Your task to perform on an android device: turn on the 12-hour format for clock Image 0: 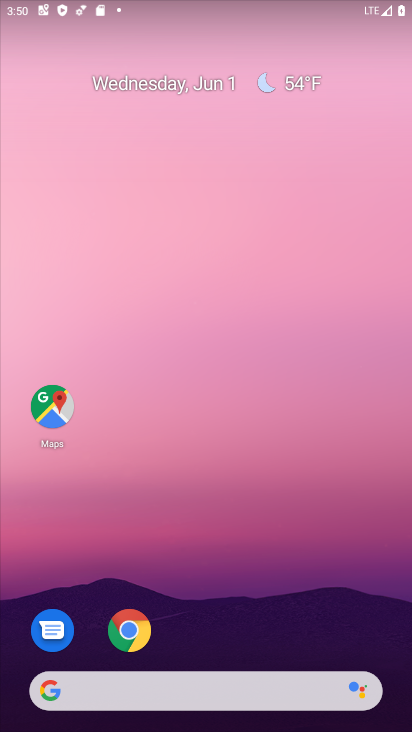
Step 0: drag from (257, 587) to (147, 26)
Your task to perform on an android device: turn on the 12-hour format for clock Image 1: 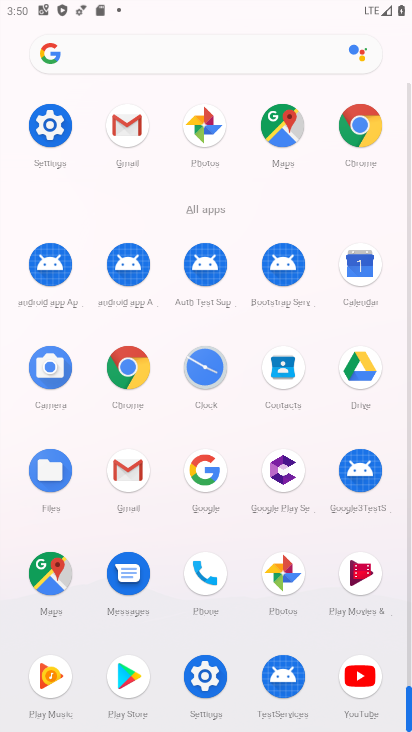
Step 1: drag from (7, 556) to (20, 135)
Your task to perform on an android device: turn on the 12-hour format for clock Image 2: 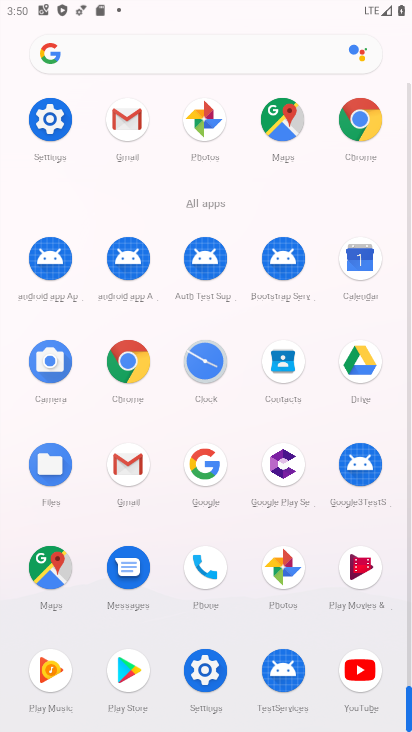
Step 2: click (202, 363)
Your task to perform on an android device: turn on the 12-hour format for clock Image 3: 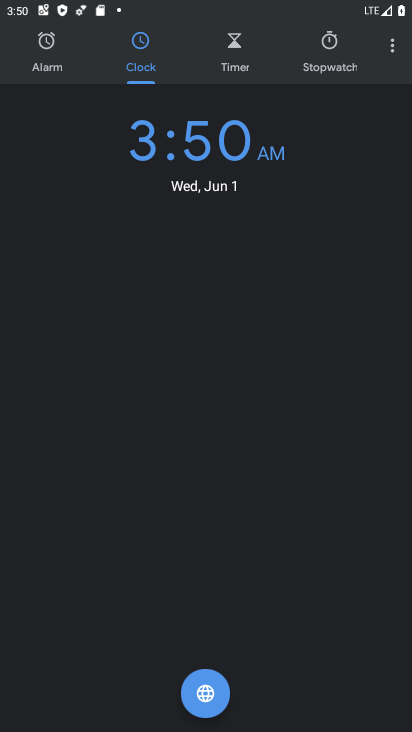
Step 3: drag from (389, 46) to (333, 94)
Your task to perform on an android device: turn on the 12-hour format for clock Image 4: 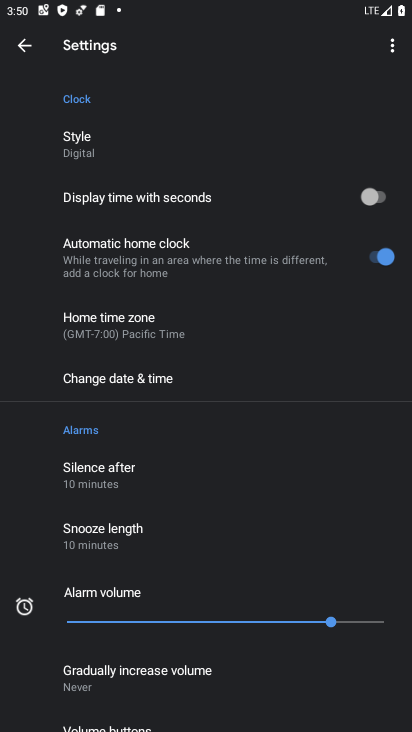
Step 4: click (124, 373)
Your task to perform on an android device: turn on the 12-hour format for clock Image 5: 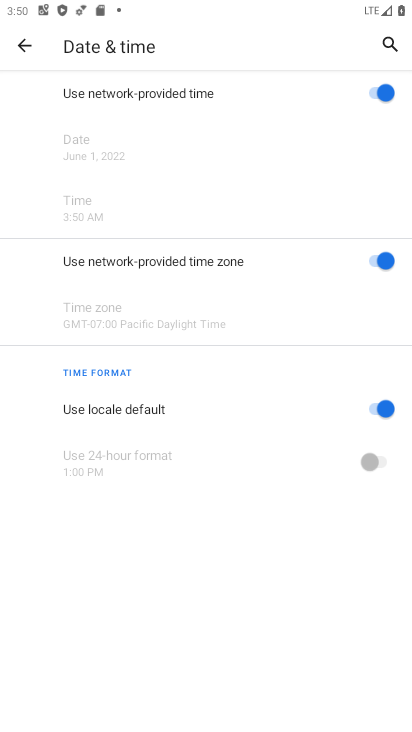
Step 5: task complete